Your task to perform on an android device: turn off improve location accuracy Image 0: 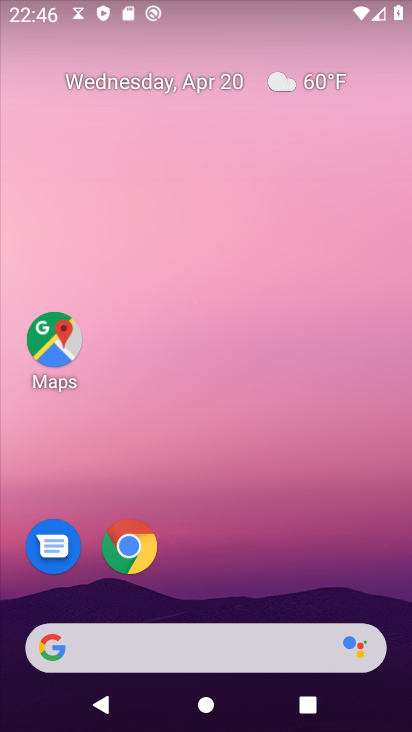
Step 0: drag from (255, 562) to (219, 52)
Your task to perform on an android device: turn off improve location accuracy Image 1: 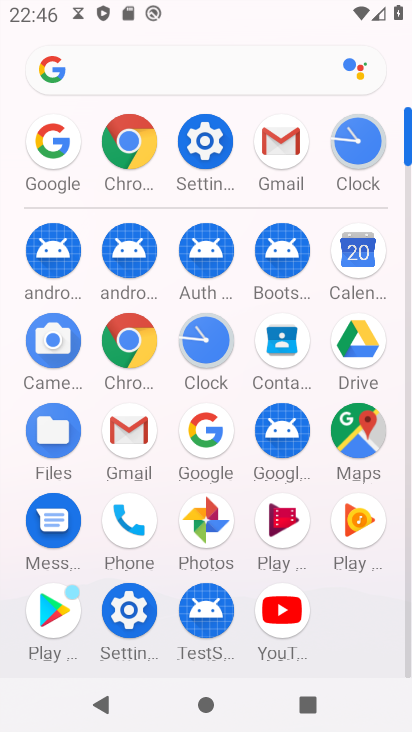
Step 1: click (205, 132)
Your task to perform on an android device: turn off improve location accuracy Image 2: 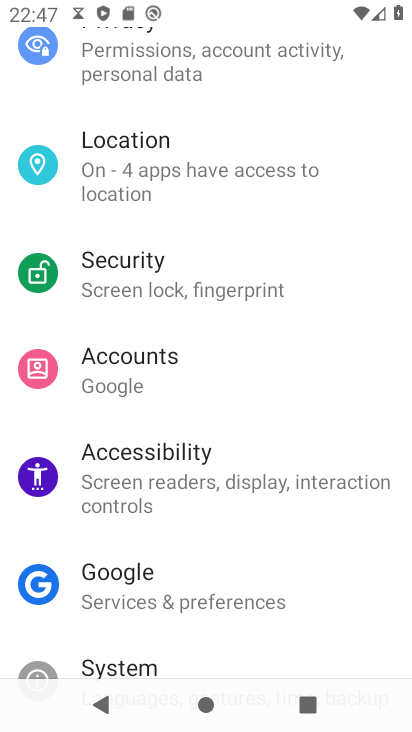
Step 2: click (170, 149)
Your task to perform on an android device: turn off improve location accuracy Image 3: 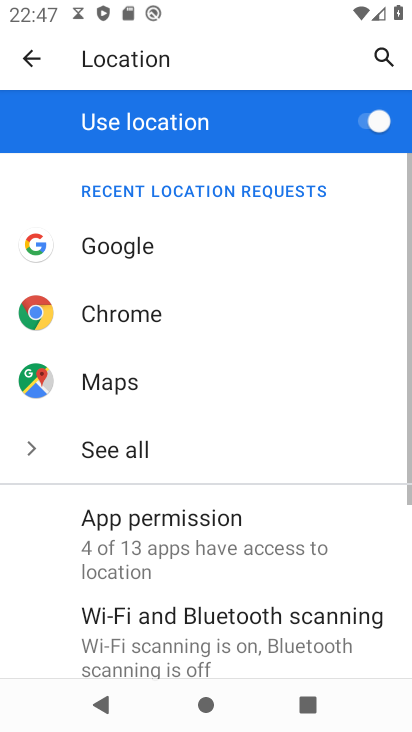
Step 3: drag from (218, 602) to (228, 137)
Your task to perform on an android device: turn off improve location accuracy Image 4: 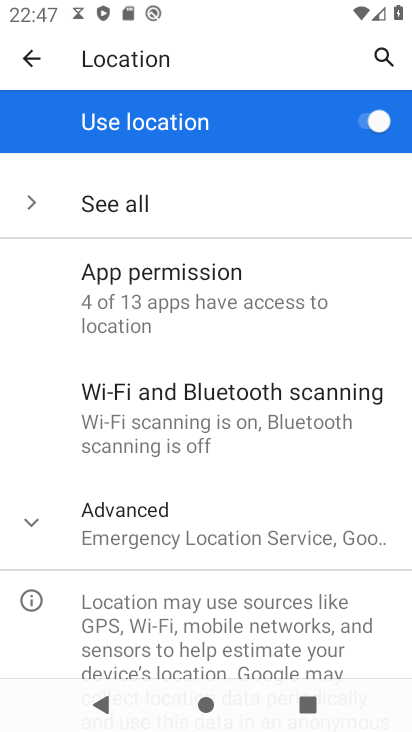
Step 4: click (206, 520)
Your task to perform on an android device: turn off improve location accuracy Image 5: 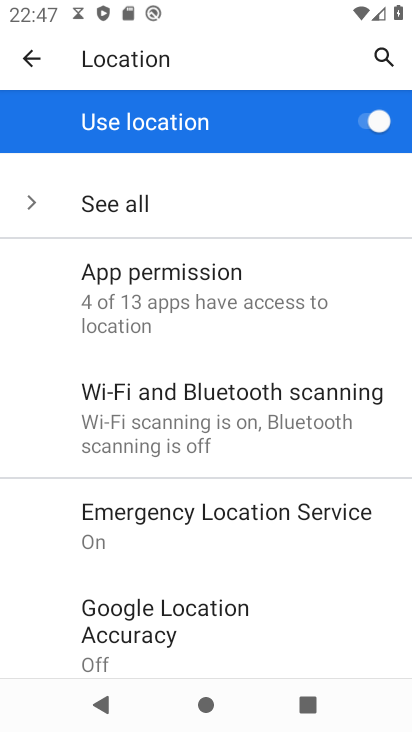
Step 5: click (210, 622)
Your task to perform on an android device: turn off improve location accuracy Image 6: 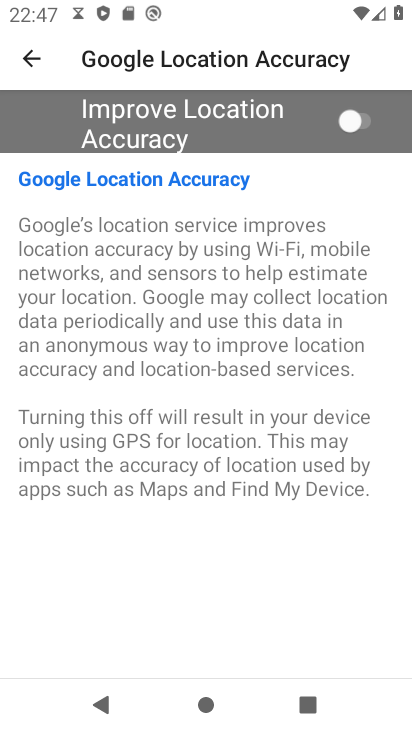
Step 6: task complete